Your task to perform on an android device: check storage Image 0: 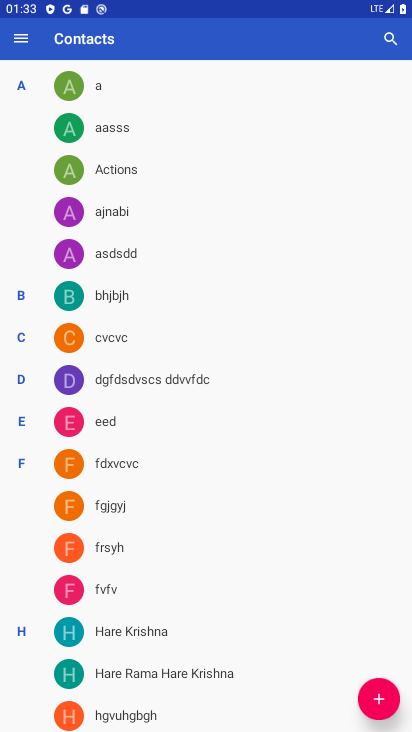
Step 0: press home button
Your task to perform on an android device: check storage Image 1: 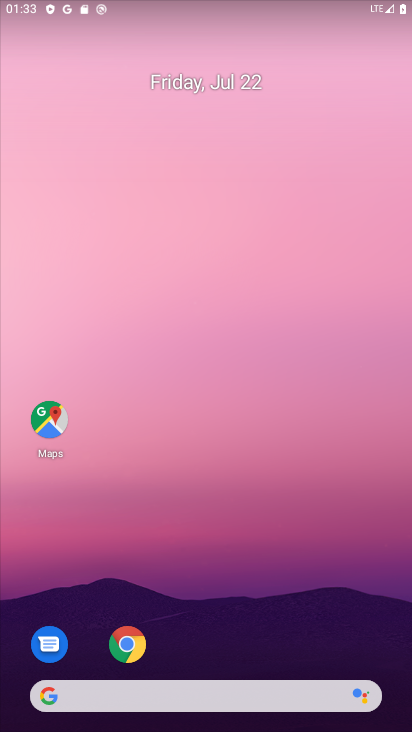
Step 1: drag from (121, 720) to (119, 86)
Your task to perform on an android device: check storage Image 2: 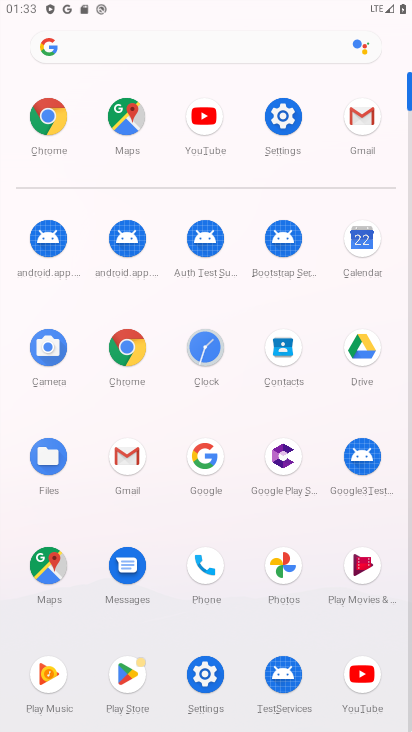
Step 2: click (277, 118)
Your task to perform on an android device: check storage Image 3: 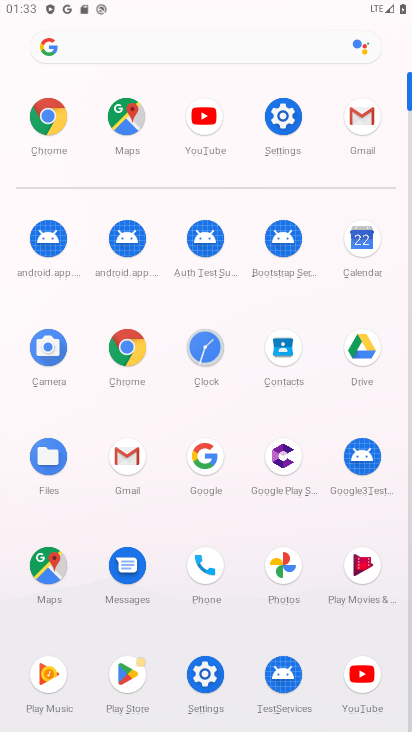
Step 3: click (277, 118)
Your task to perform on an android device: check storage Image 4: 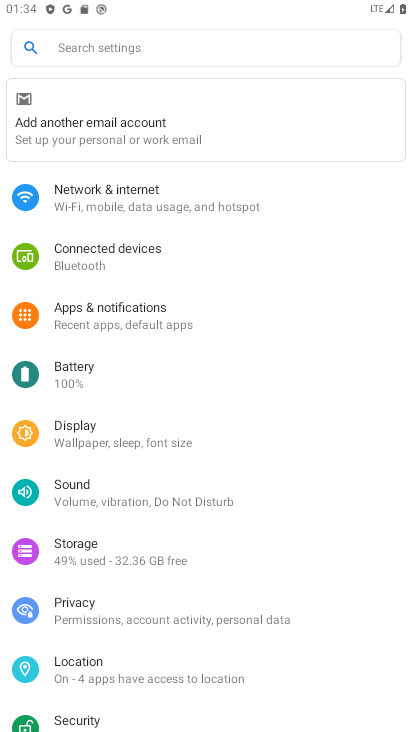
Step 4: click (125, 551)
Your task to perform on an android device: check storage Image 5: 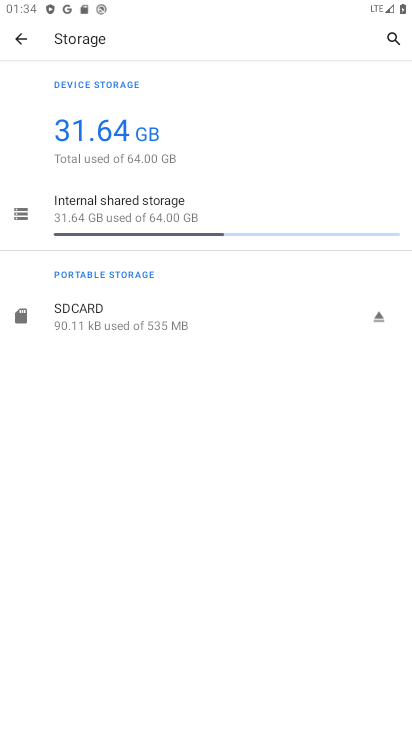
Step 5: task complete